Your task to perform on an android device: turn on bluetooth scan Image 0: 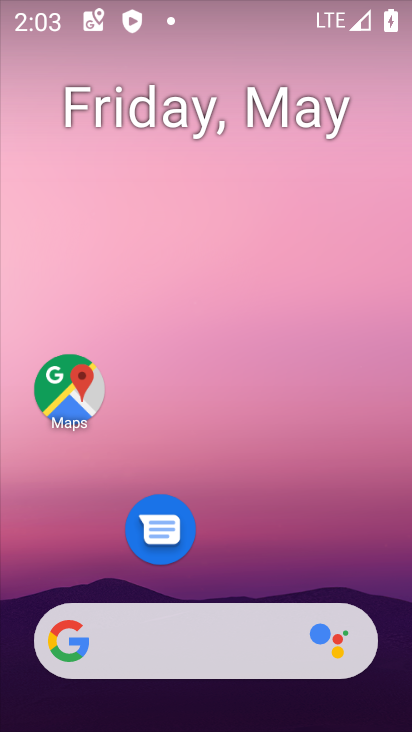
Step 0: click (401, 390)
Your task to perform on an android device: turn on bluetooth scan Image 1: 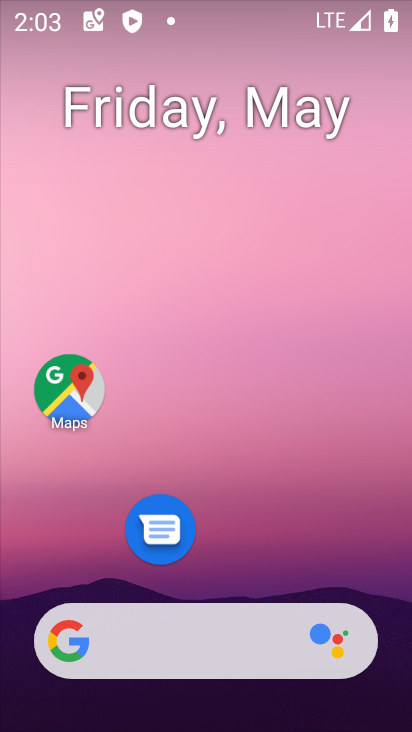
Step 1: drag from (210, 591) to (200, 218)
Your task to perform on an android device: turn on bluetooth scan Image 2: 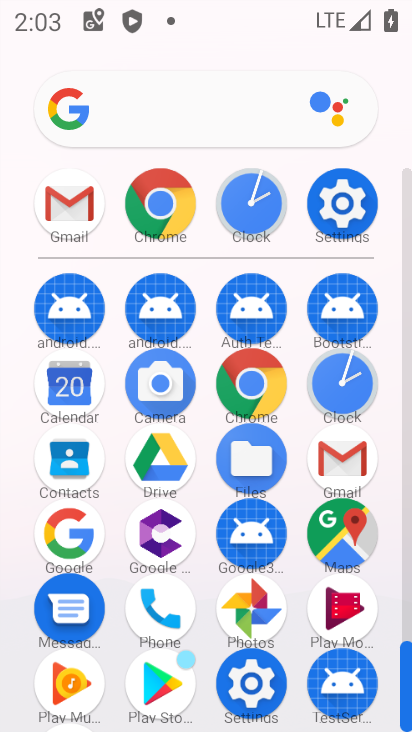
Step 2: click (350, 203)
Your task to perform on an android device: turn on bluetooth scan Image 3: 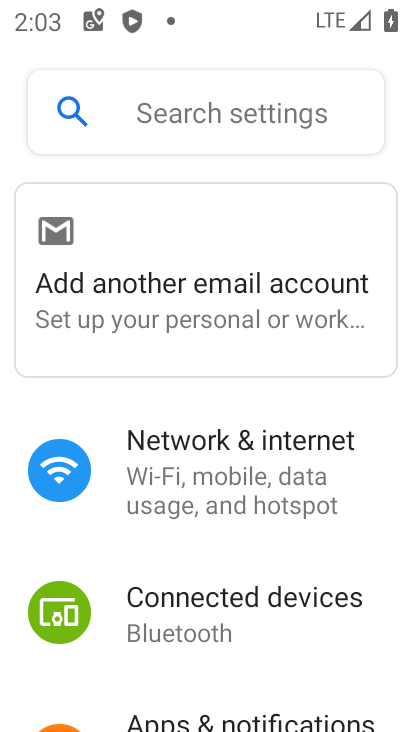
Step 3: drag from (247, 636) to (232, 221)
Your task to perform on an android device: turn on bluetooth scan Image 4: 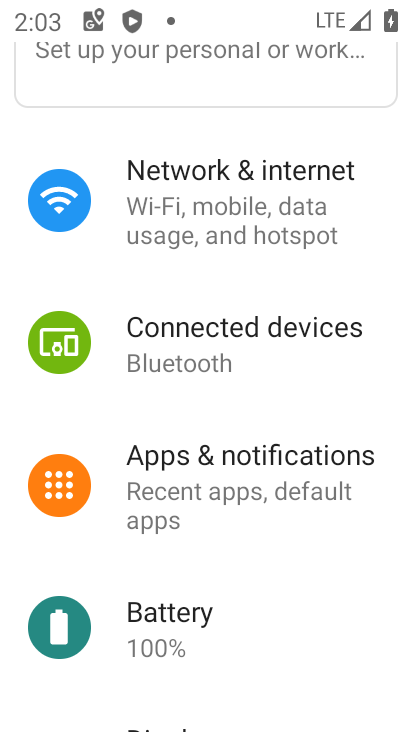
Step 4: drag from (258, 564) to (358, 93)
Your task to perform on an android device: turn on bluetooth scan Image 5: 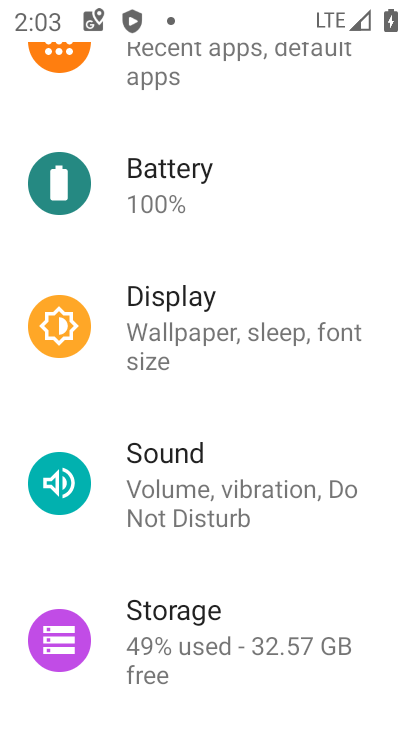
Step 5: drag from (224, 638) to (260, 218)
Your task to perform on an android device: turn on bluetooth scan Image 6: 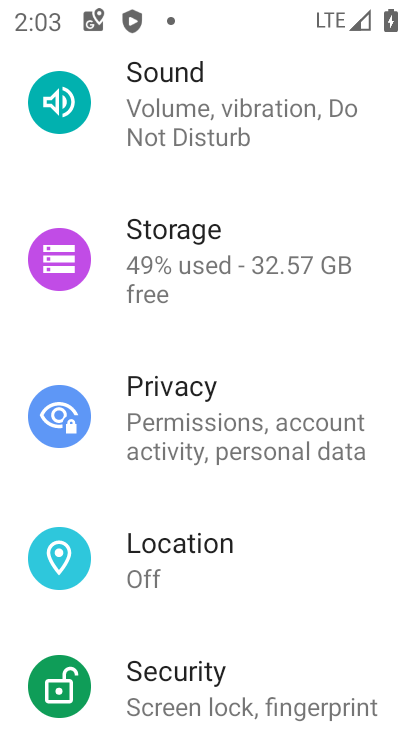
Step 6: drag from (238, 586) to (306, 43)
Your task to perform on an android device: turn on bluetooth scan Image 7: 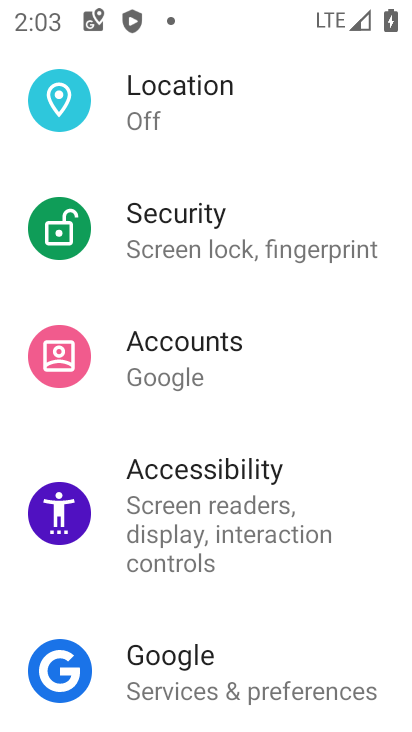
Step 7: drag from (230, 611) to (263, 138)
Your task to perform on an android device: turn on bluetooth scan Image 8: 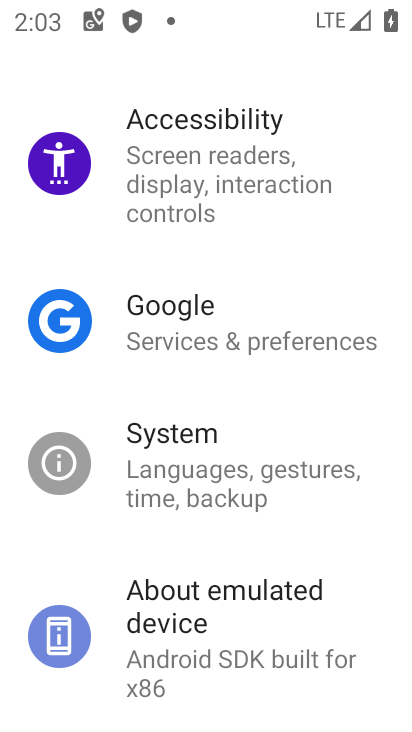
Step 8: click (205, 480)
Your task to perform on an android device: turn on bluetooth scan Image 9: 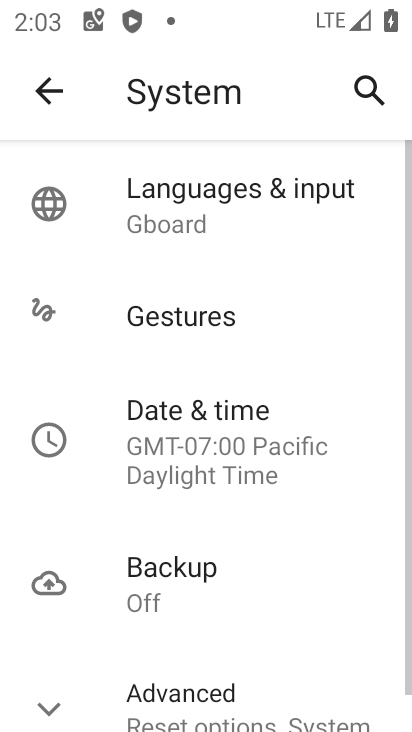
Step 9: drag from (241, 437) to (350, 93)
Your task to perform on an android device: turn on bluetooth scan Image 10: 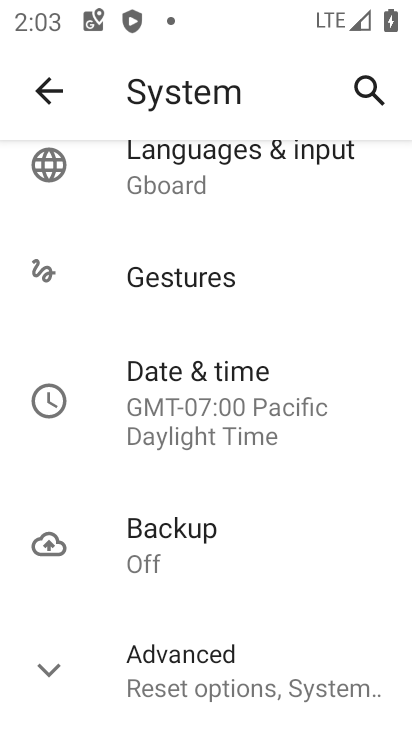
Step 10: drag from (225, 608) to (232, 368)
Your task to perform on an android device: turn on bluetooth scan Image 11: 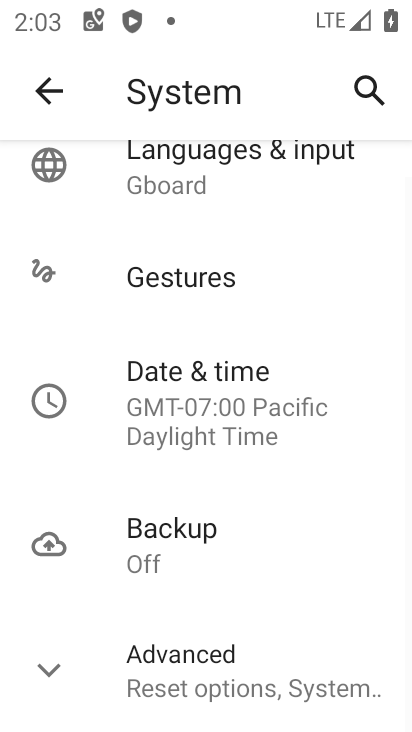
Step 11: drag from (235, 213) to (321, 643)
Your task to perform on an android device: turn on bluetooth scan Image 12: 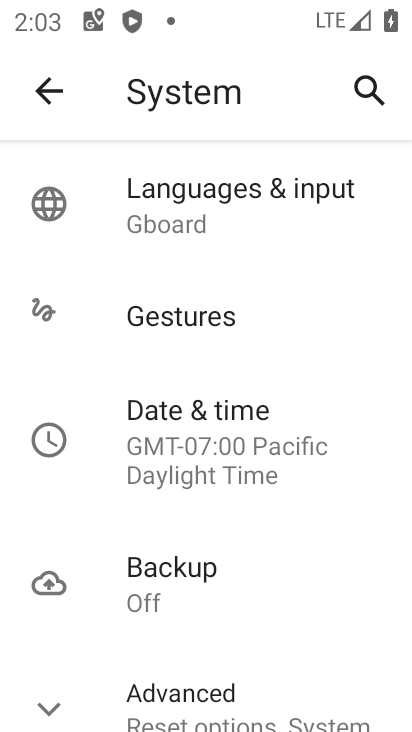
Step 12: click (63, 107)
Your task to perform on an android device: turn on bluetooth scan Image 13: 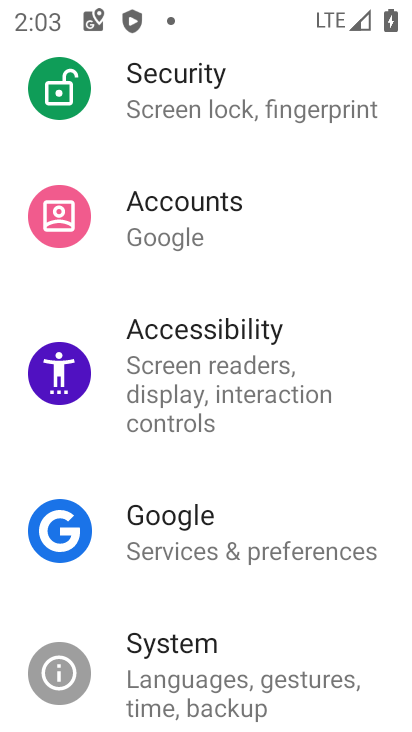
Step 13: drag from (229, 201) to (326, 676)
Your task to perform on an android device: turn on bluetooth scan Image 14: 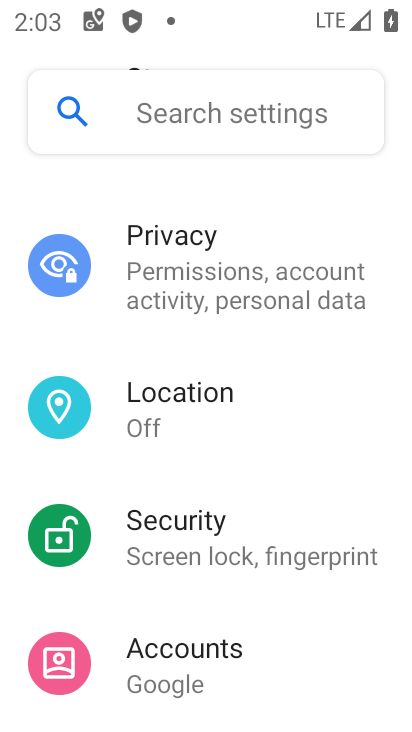
Step 14: click (177, 422)
Your task to perform on an android device: turn on bluetooth scan Image 15: 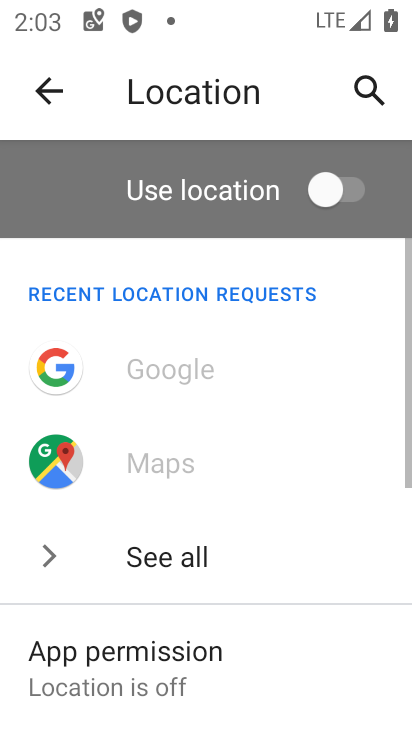
Step 15: drag from (257, 596) to (297, 246)
Your task to perform on an android device: turn on bluetooth scan Image 16: 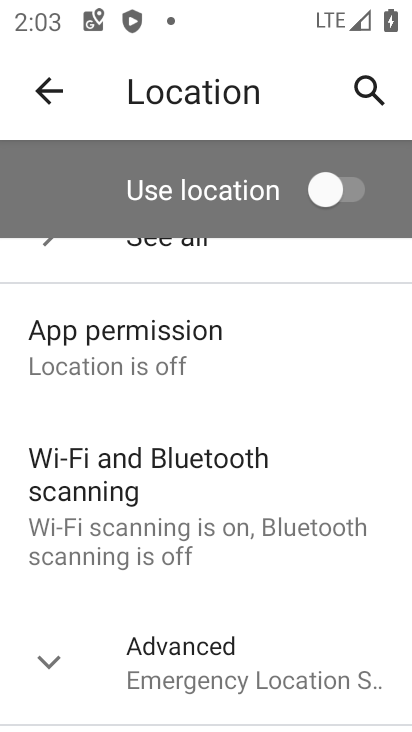
Step 16: click (169, 528)
Your task to perform on an android device: turn on bluetooth scan Image 17: 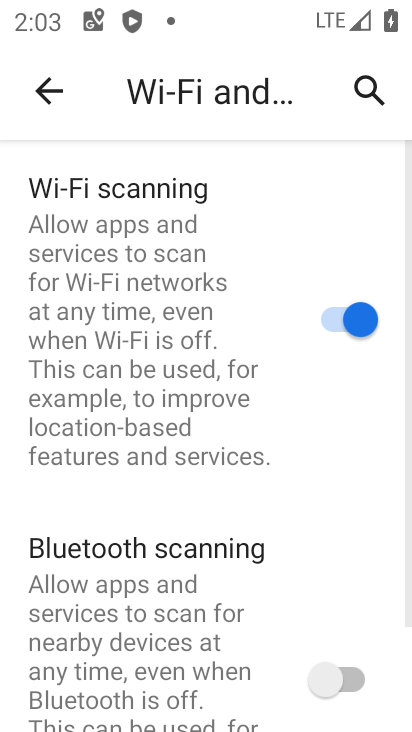
Step 17: click (301, 651)
Your task to perform on an android device: turn on bluetooth scan Image 18: 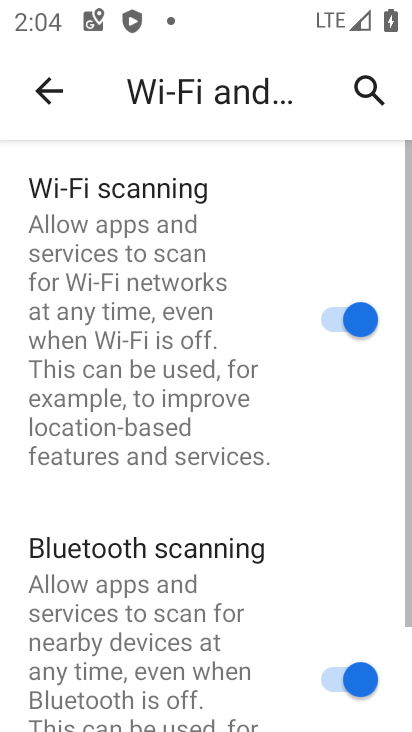
Step 18: task complete